Your task to perform on an android device: manage bookmarks in the chrome app Image 0: 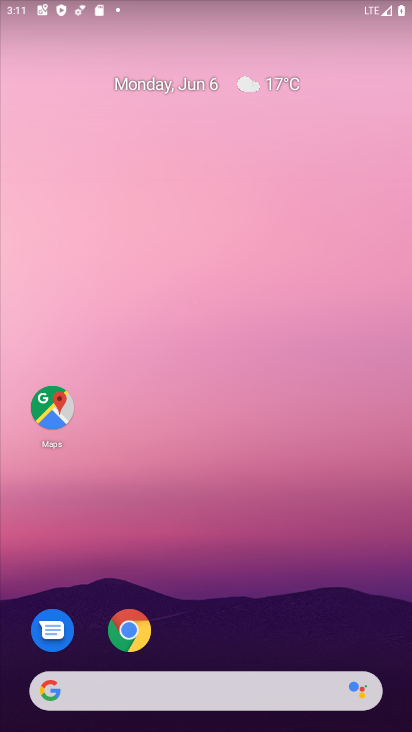
Step 0: click (135, 629)
Your task to perform on an android device: manage bookmarks in the chrome app Image 1: 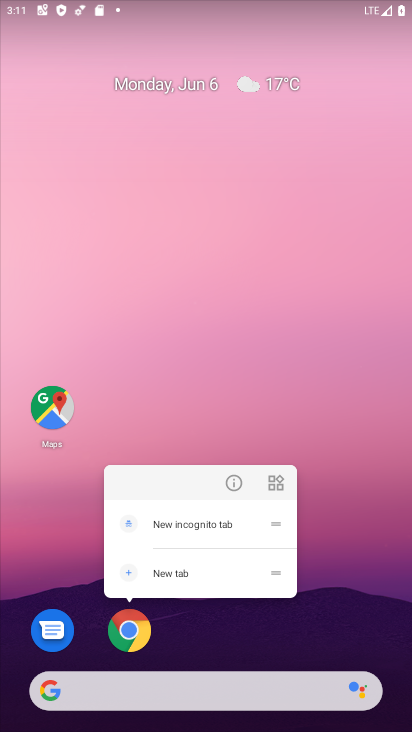
Step 1: click (135, 625)
Your task to perform on an android device: manage bookmarks in the chrome app Image 2: 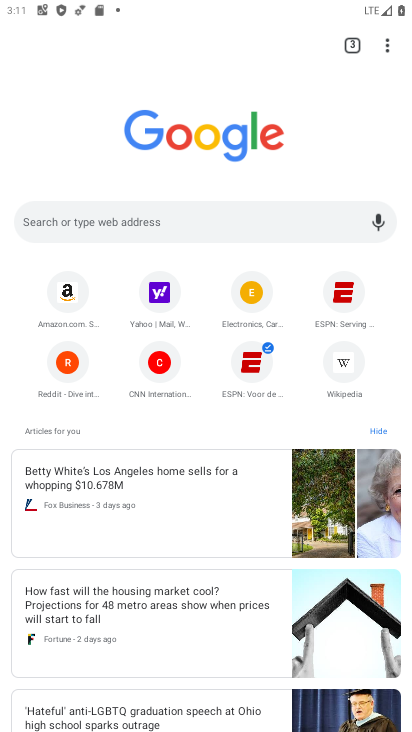
Step 2: drag from (381, 42) to (232, 169)
Your task to perform on an android device: manage bookmarks in the chrome app Image 3: 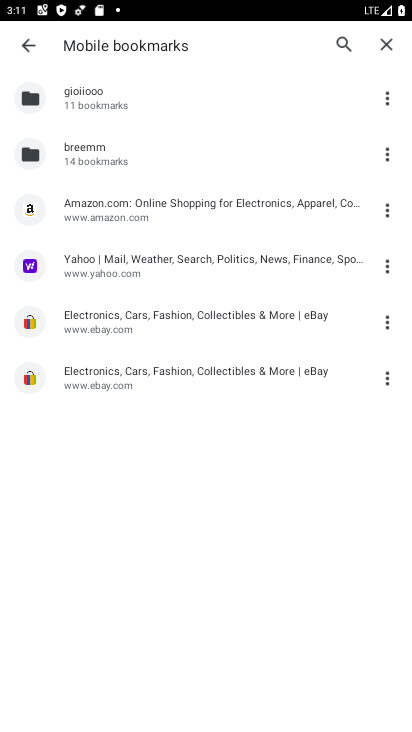
Step 3: click (385, 317)
Your task to perform on an android device: manage bookmarks in the chrome app Image 4: 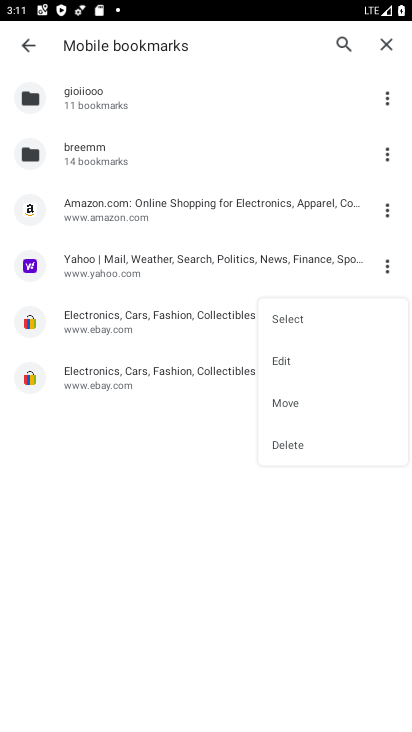
Step 4: click (290, 437)
Your task to perform on an android device: manage bookmarks in the chrome app Image 5: 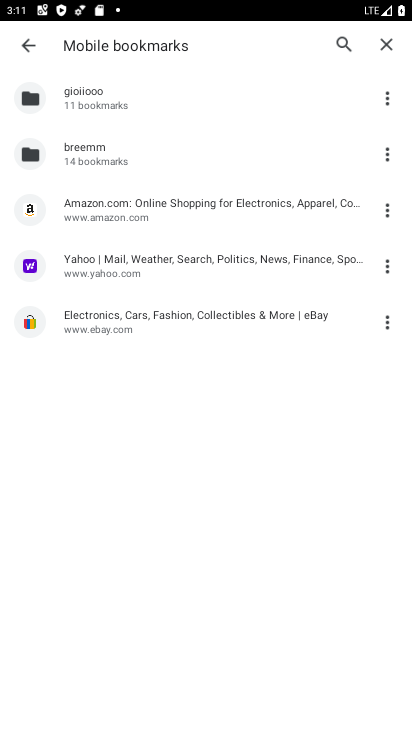
Step 5: task complete